Your task to perform on an android device: find which apps use the phone's location Image 0: 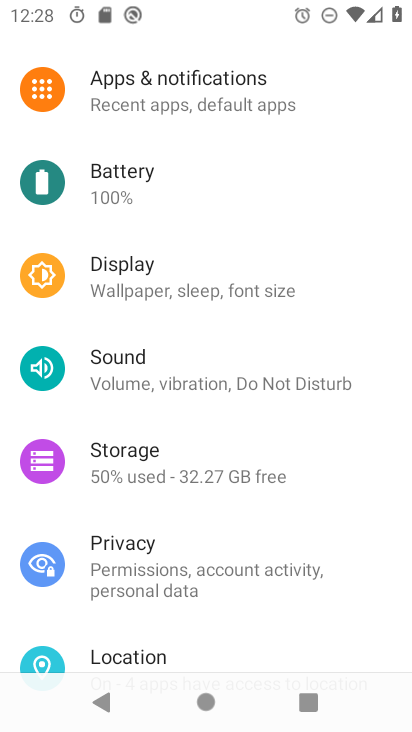
Step 0: press home button
Your task to perform on an android device: find which apps use the phone's location Image 1: 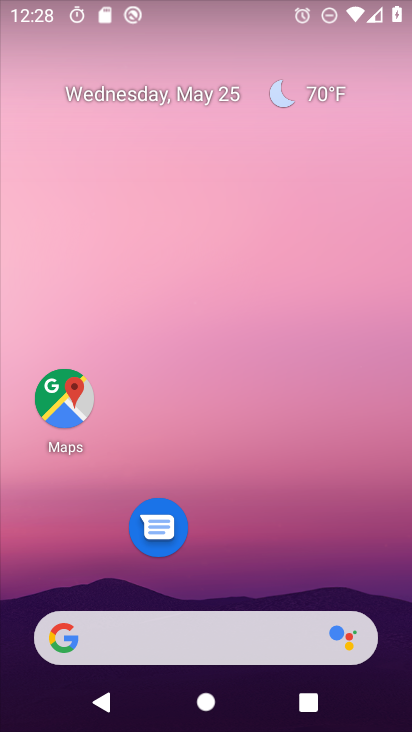
Step 1: drag from (256, 554) to (282, 110)
Your task to perform on an android device: find which apps use the phone's location Image 2: 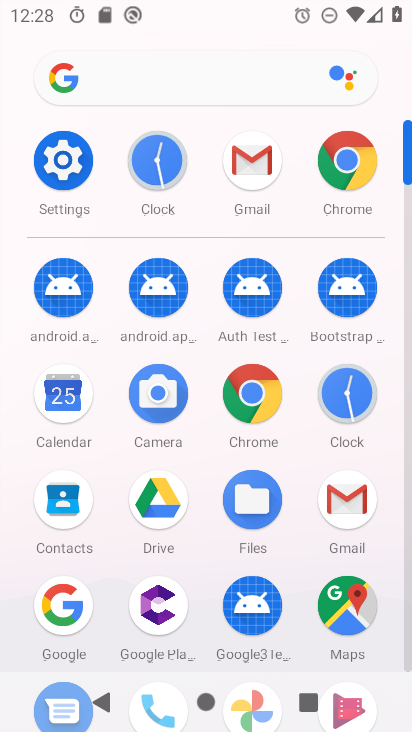
Step 2: click (56, 151)
Your task to perform on an android device: find which apps use the phone's location Image 3: 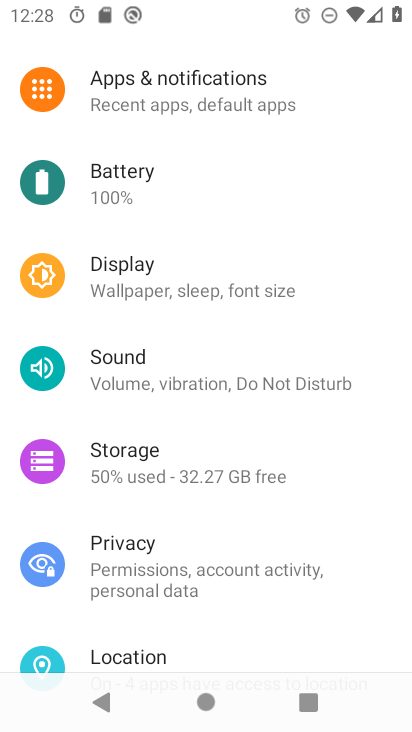
Step 3: drag from (251, 563) to (245, 371)
Your task to perform on an android device: find which apps use the phone's location Image 4: 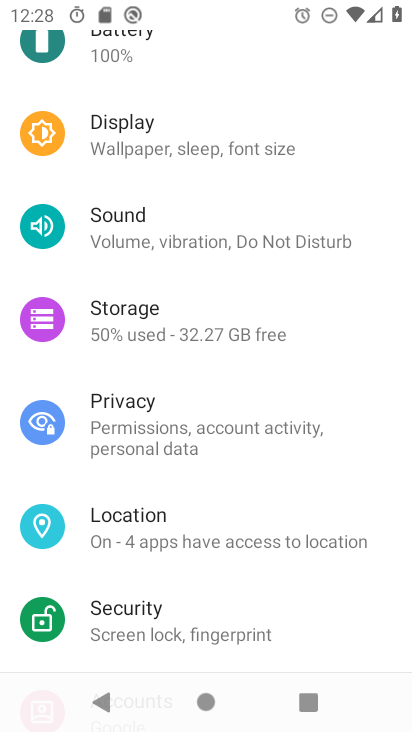
Step 4: click (202, 522)
Your task to perform on an android device: find which apps use the phone's location Image 5: 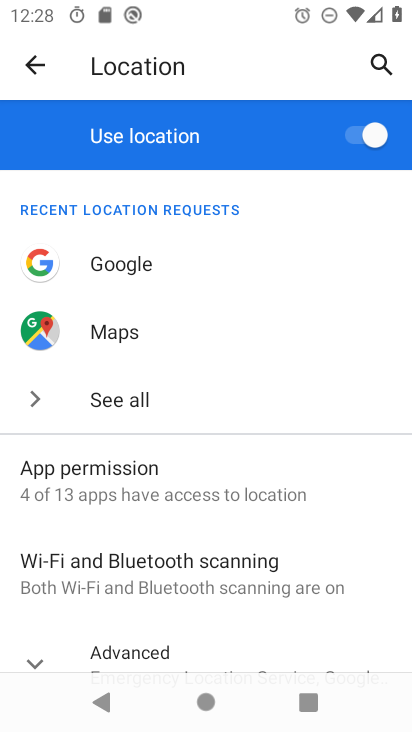
Step 5: drag from (291, 545) to (290, 306)
Your task to perform on an android device: find which apps use the phone's location Image 6: 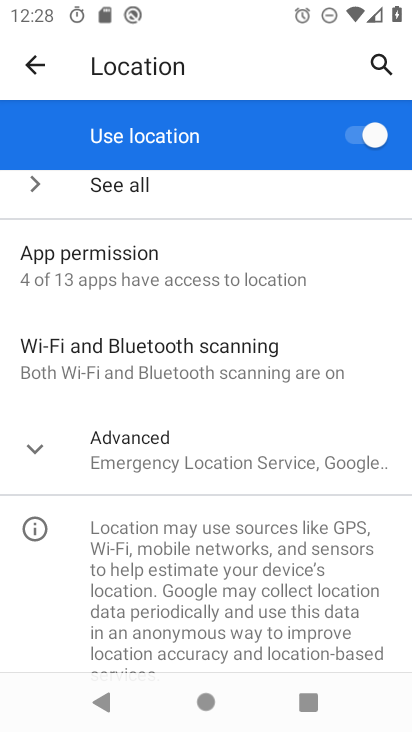
Step 6: click (95, 259)
Your task to perform on an android device: find which apps use the phone's location Image 7: 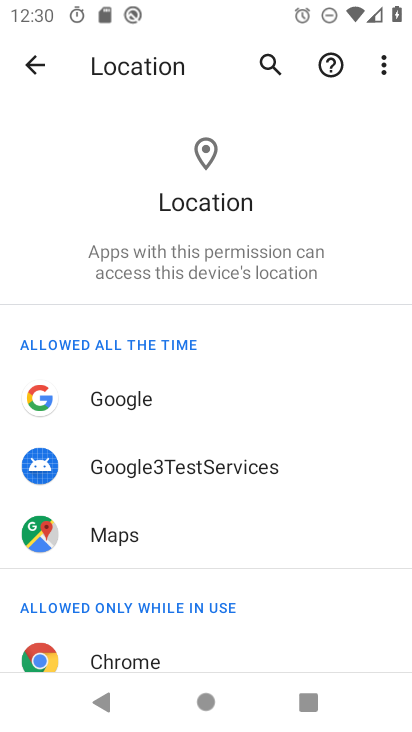
Step 7: task complete